Your task to perform on an android device: change your default location settings in chrome Image 0: 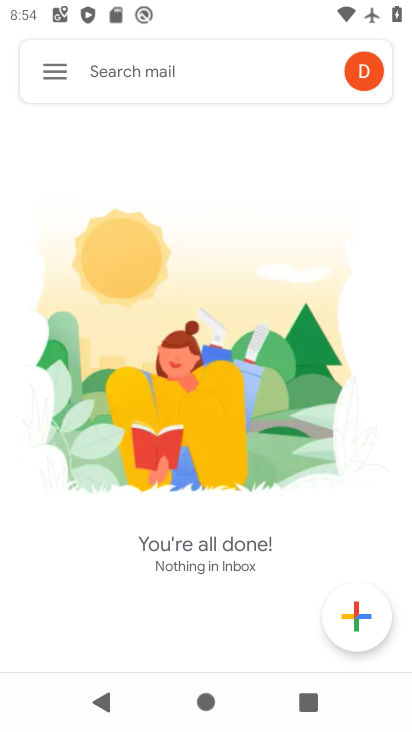
Step 0: press home button
Your task to perform on an android device: change your default location settings in chrome Image 1: 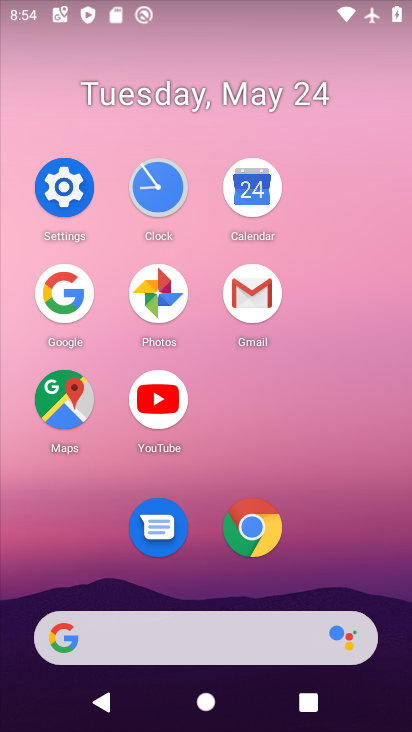
Step 1: click (264, 547)
Your task to perform on an android device: change your default location settings in chrome Image 2: 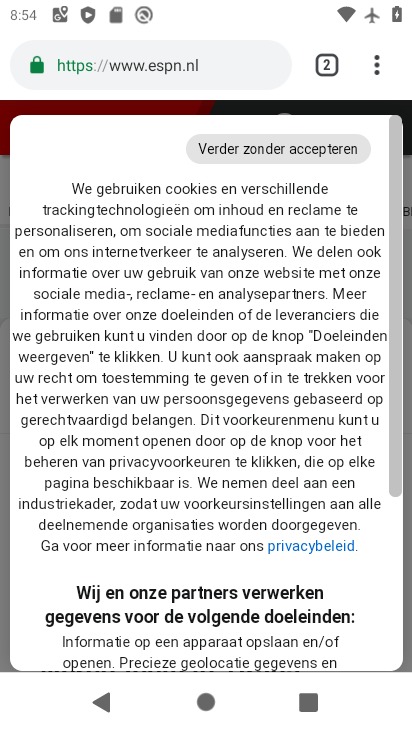
Step 2: click (390, 84)
Your task to perform on an android device: change your default location settings in chrome Image 3: 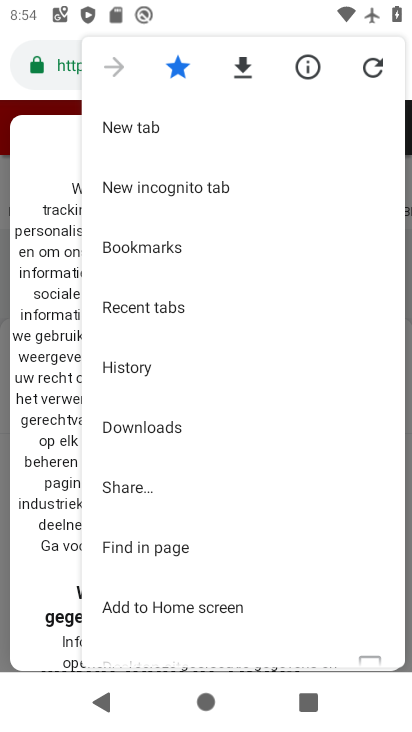
Step 3: drag from (283, 571) to (328, 186)
Your task to perform on an android device: change your default location settings in chrome Image 4: 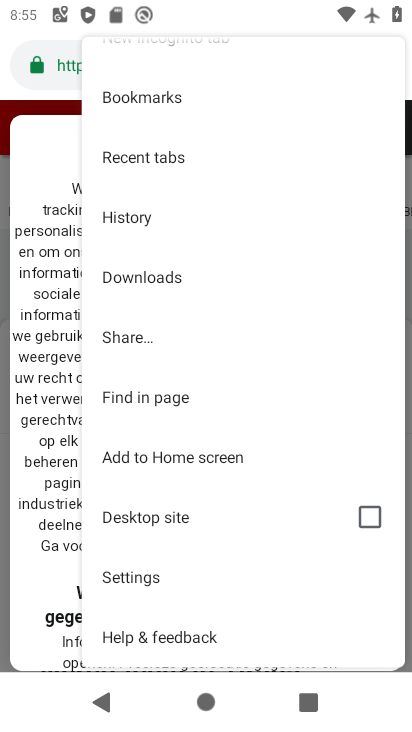
Step 4: click (170, 571)
Your task to perform on an android device: change your default location settings in chrome Image 5: 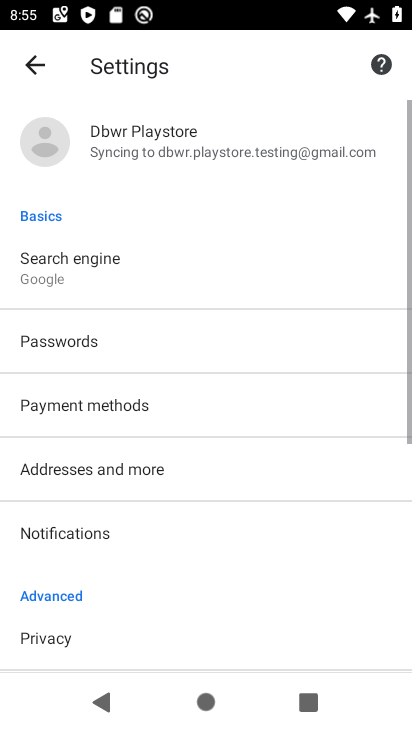
Step 5: drag from (215, 528) to (291, 171)
Your task to perform on an android device: change your default location settings in chrome Image 6: 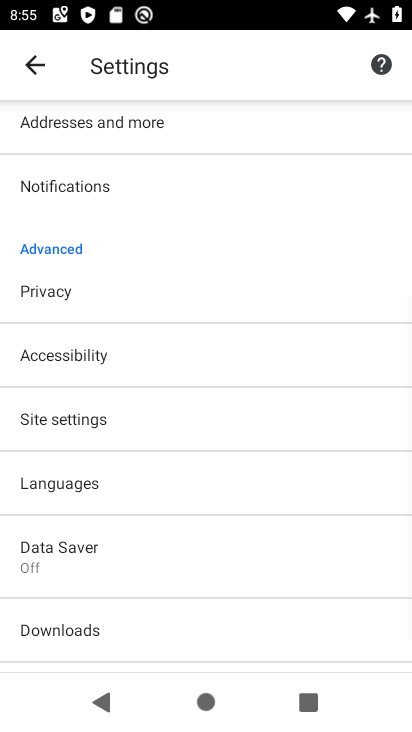
Step 6: drag from (154, 561) to (232, 216)
Your task to perform on an android device: change your default location settings in chrome Image 7: 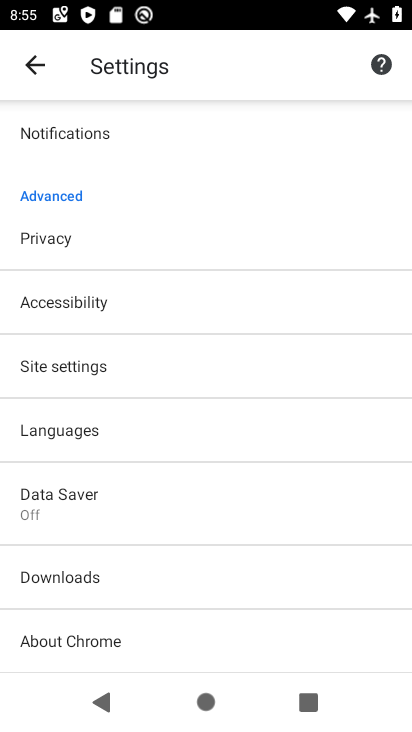
Step 7: click (131, 356)
Your task to perform on an android device: change your default location settings in chrome Image 8: 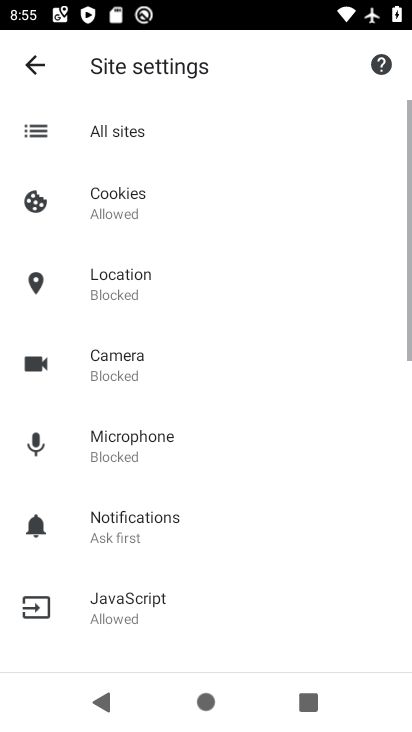
Step 8: click (162, 285)
Your task to perform on an android device: change your default location settings in chrome Image 9: 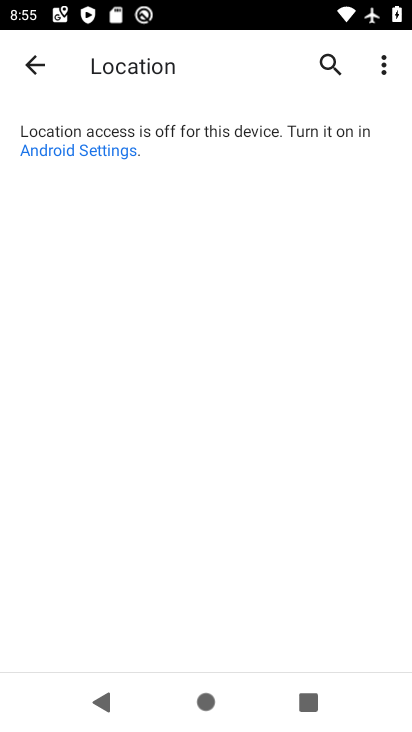
Step 9: click (128, 154)
Your task to perform on an android device: change your default location settings in chrome Image 10: 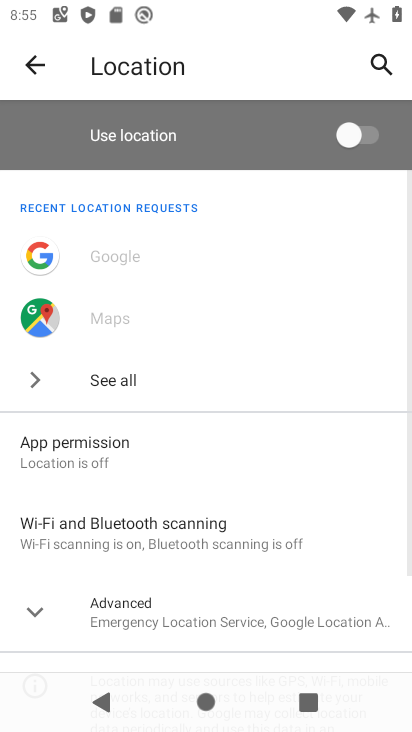
Step 10: click (361, 138)
Your task to perform on an android device: change your default location settings in chrome Image 11: 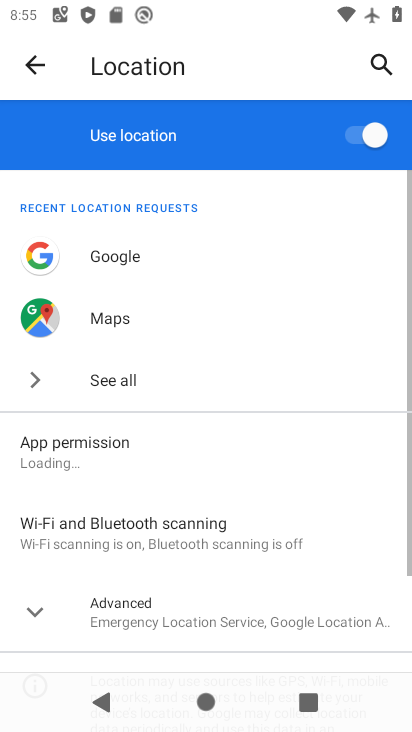
Step 11: task complete